Your task to perform on an android device: Open eBay Image 0: 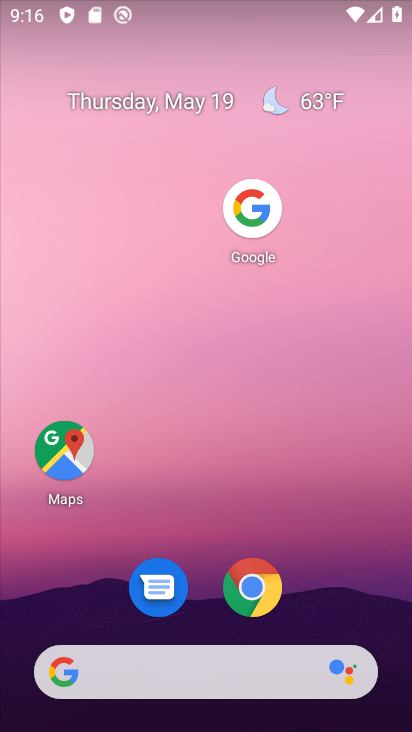
Step 0: drag from (211, 647) to (179, 126)
Your task to perform on an android device: Open eBay Image 1: 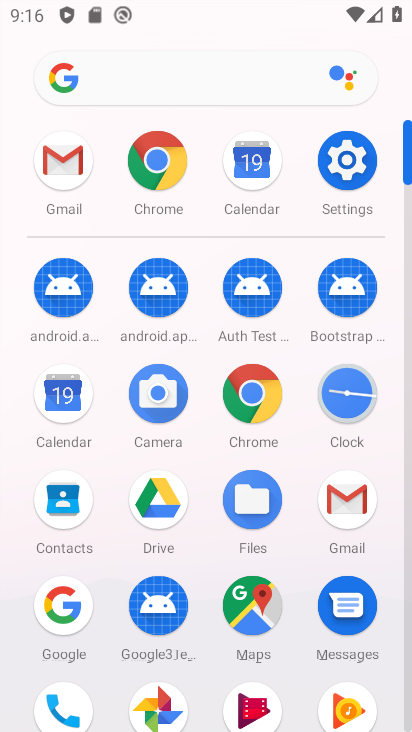
Step 1: click (236, 395)
Your task to perform on an android device: Open eBay Image 2: 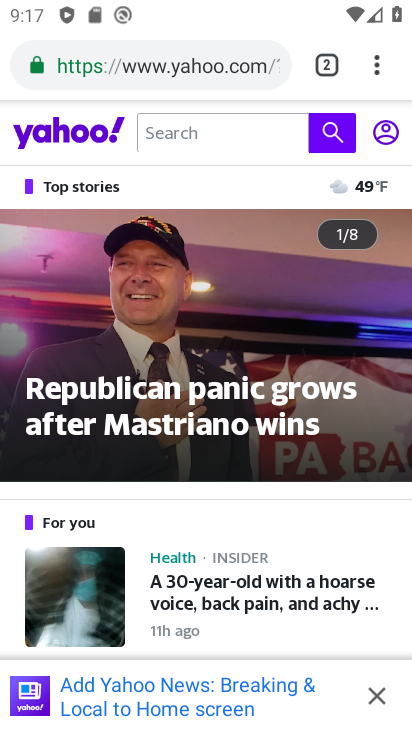
Step 2: click (337, 69)
Your task to perform on an android device: Open eBay Image 3: 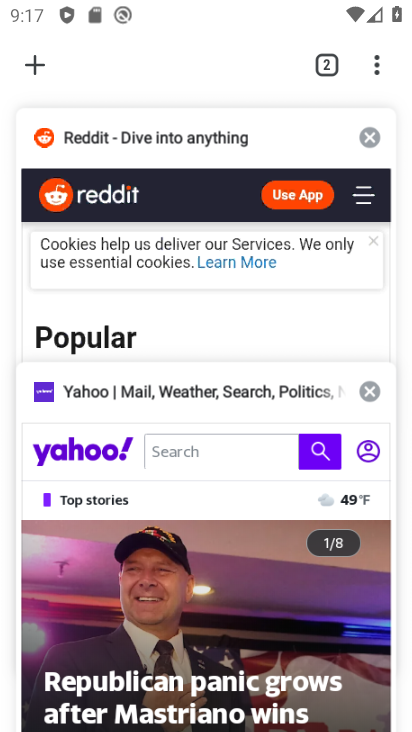
Step 3: click (37, 65)
Your task to perform on an android device: Open eBay Image 4: 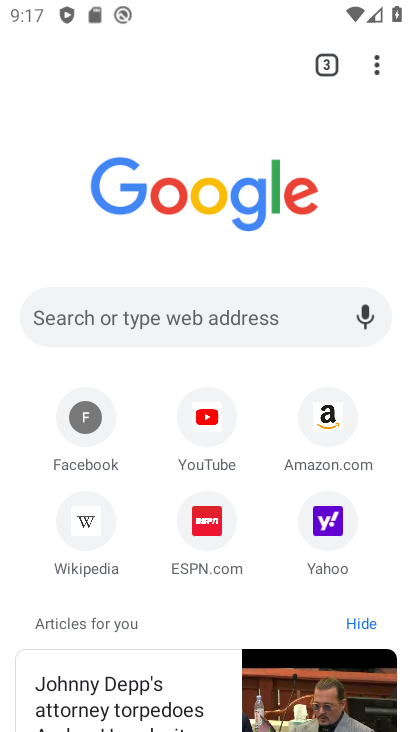
Step 4: click (226, 327)
Your task to perform on an android device: Open eBay Image 5: 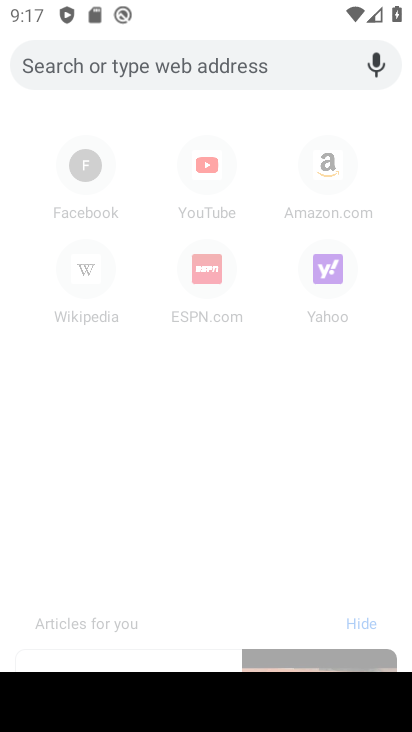
Step 5: type "ebay"
Your task to perform on an android device: Open eBay Image 6: 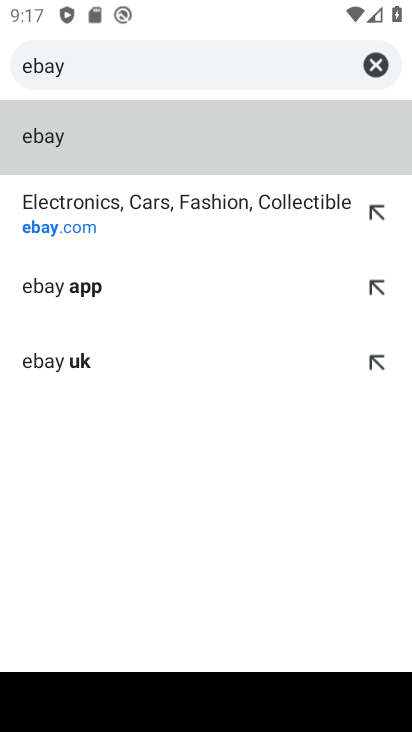
Step 6: click (166, 253)
Your task to perform on an android device: Open eBay Image 7: 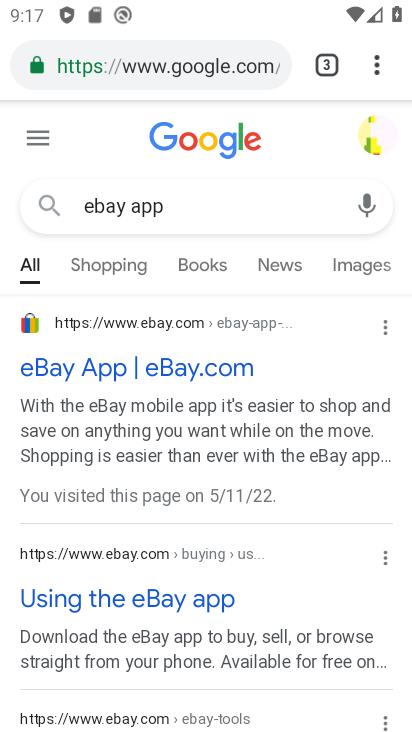
Step 7: click (202, 379)
Your task to perform on an android device: Open eBay Image 8: 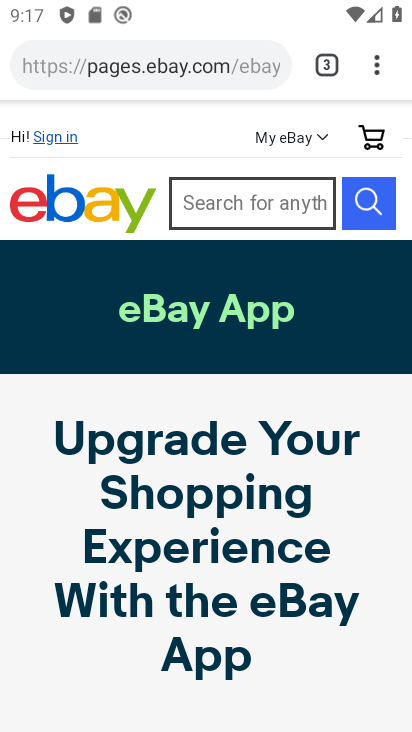
Step 8: task complete